Your task to perform on an android device: turn off improve location accuracy Image 0: 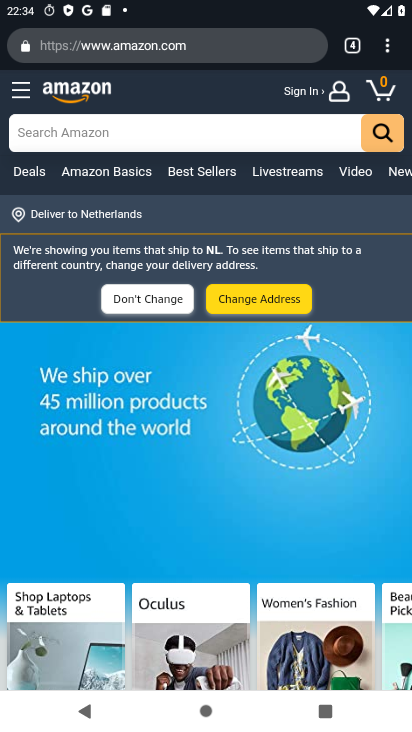
Step 0: press home button
Your task to perform on an android device: turn off improve location accuracy Image 1: 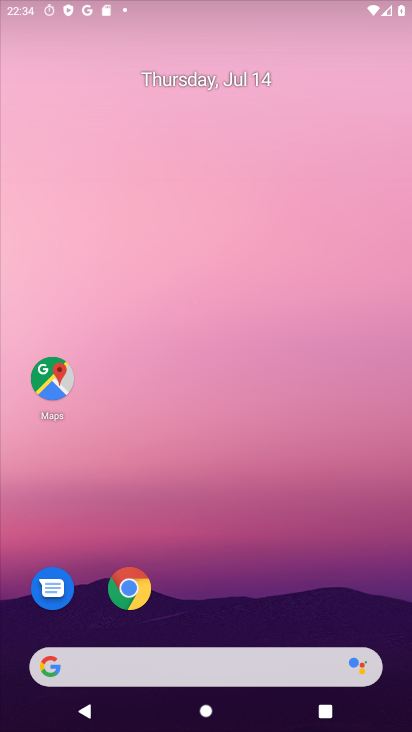
Step 1: drag from (217, 612) to (247, 159)
Your task to perform on an android device: turn off improve location accuracy Image 2: 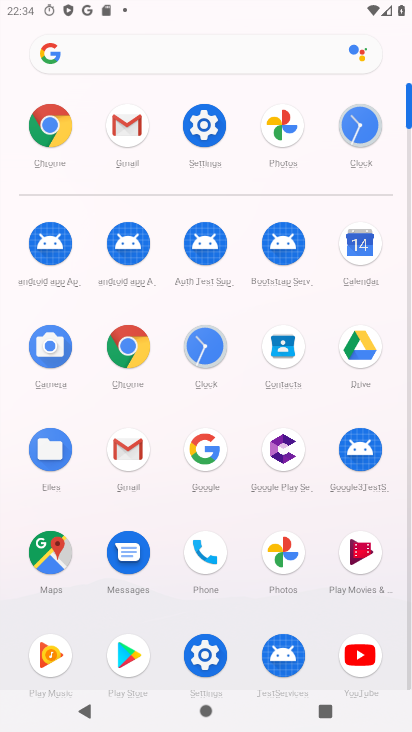
Step 2: click (203, 121)
Your task to perform on an android device: turn off improve location accuracy Image 3: 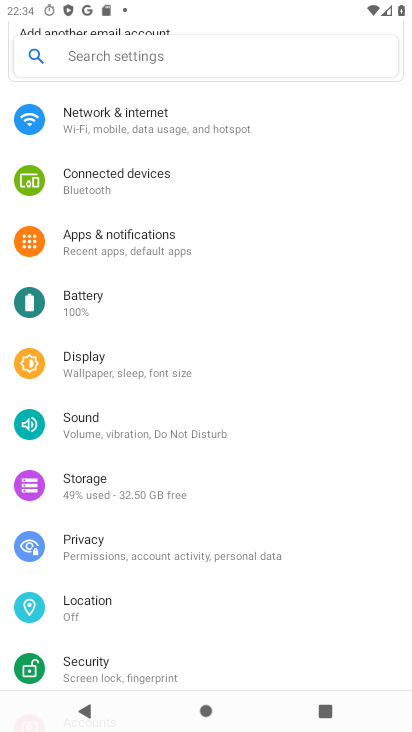
Step 3: click (93, 623)
Your task to perform on an android device: turn off improve location accuracy Image 4: 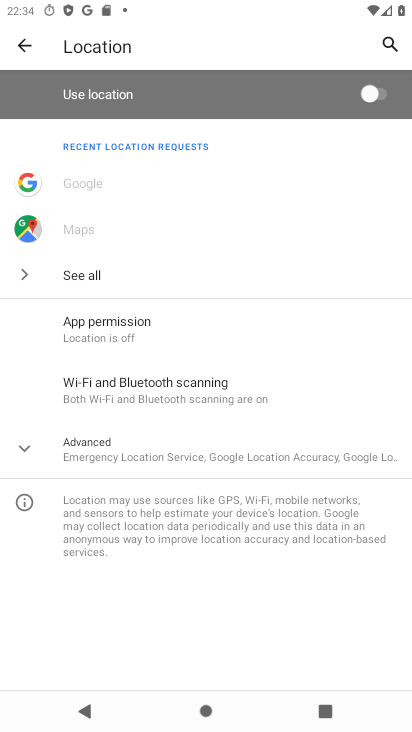
Step 4: click (84, 452)
Your task to perform on an android device: turn off improve location accuracy Image 5: 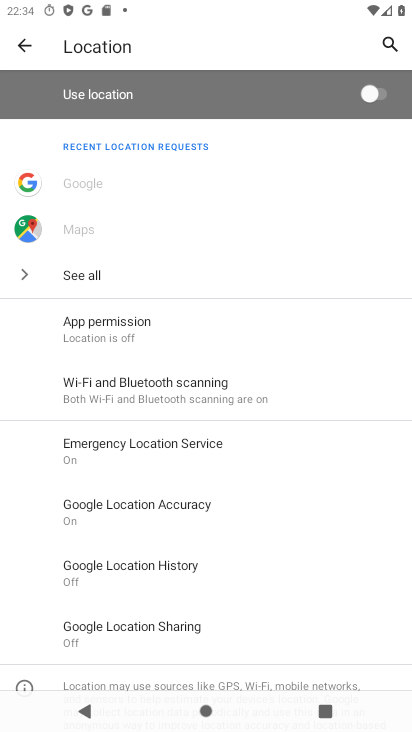
Step 5: click (140, 520)
Your task to perform on an android device: turn off improve location accuracy Image 6: 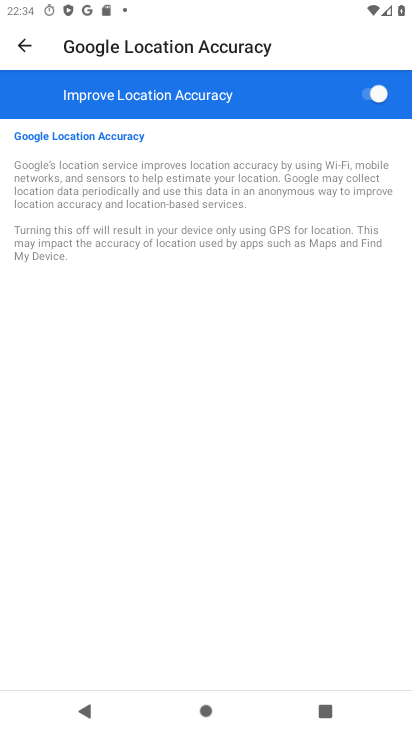
Step 6: click (378, 93)
Your task to perform on an android device: turn off improve location accuracy Image 7: 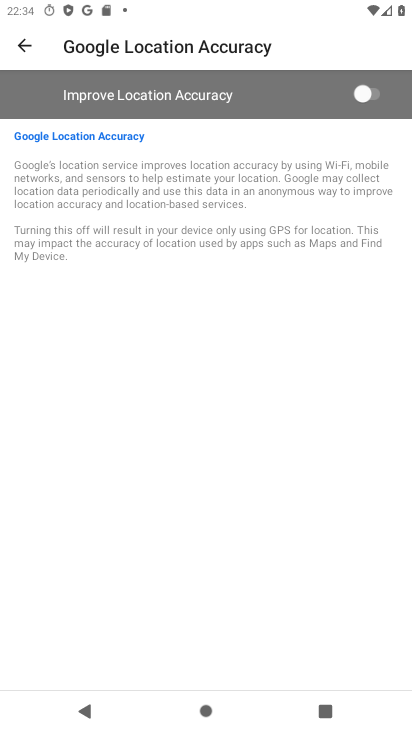
Step 7: task complete